Your task to perform on an android device: turn smart compose on in the gmail app Image 0: 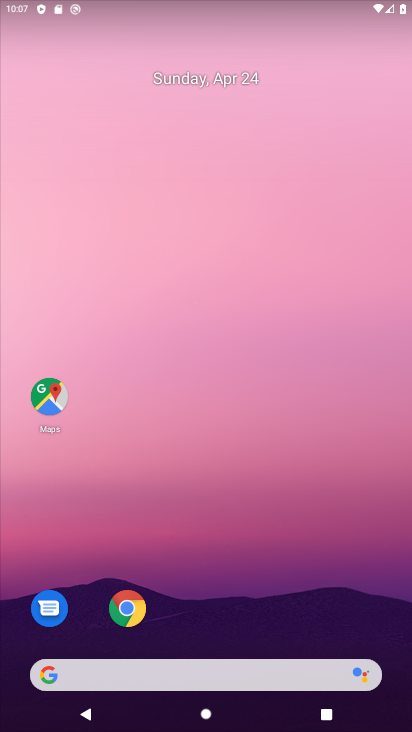
Step 0: drag from (250, 703) to (236, 123)
Your task to perform on an android device: turn smart compose on in the gmail app Image 1: 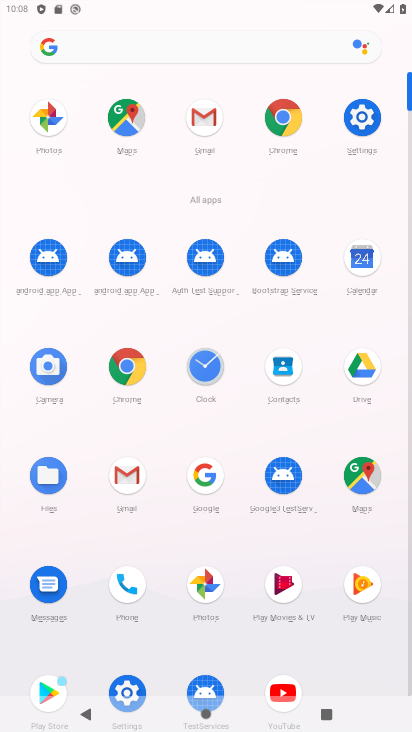
Step 1: click (217, 142)
Your task to perform on an android device: turn smart compose on in the gmail app Image 2: 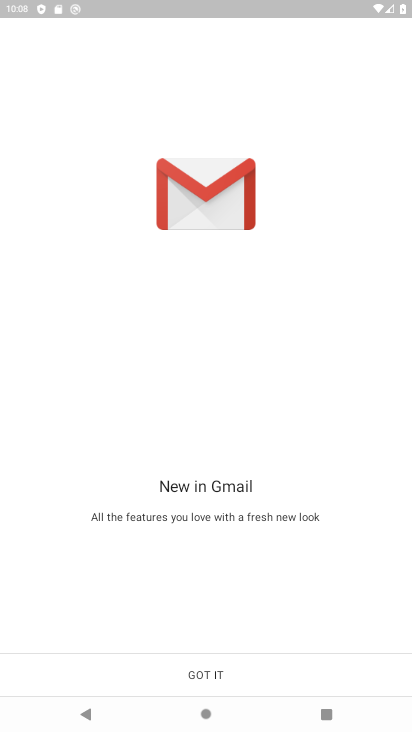
Step 2: click (221, 668)
Your task to perform on an android device: turn smart compose on in the gmail app Image 3: 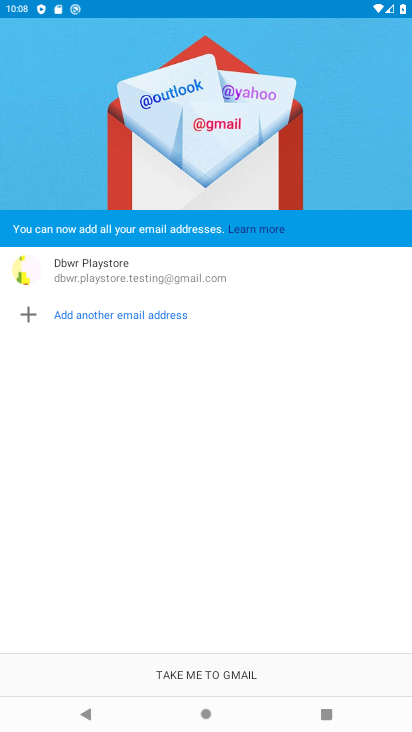
Step 3: click (221, 668)
Your task to perform on an android device: turn smart compose on in the gmail app Image 4: 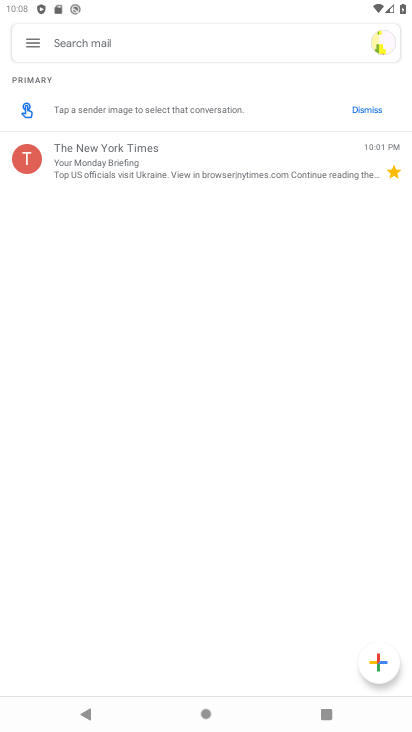
Step 4: click (371, 106)
Your task to perform on an android device: turn smart compose on in the gmail app Image 5: 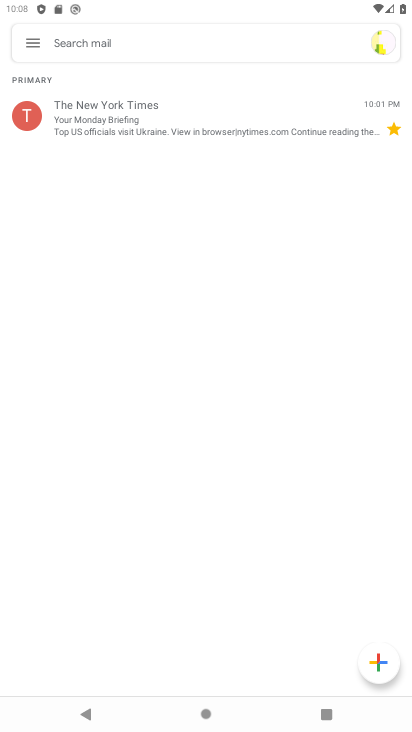
Step 5: click (29, 47)
Your task to perform on an android device: turn smart compose on in the gmail app Image 6: 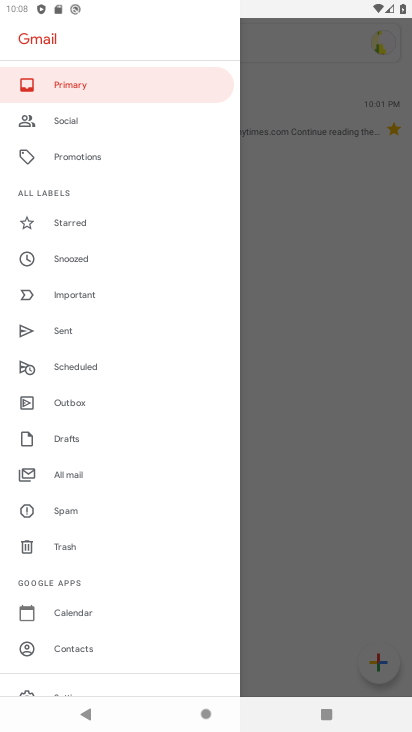
Step 6: click (66, 688)
Your task to perform on an android device: turn smart compose on in the gmail app Image 7: 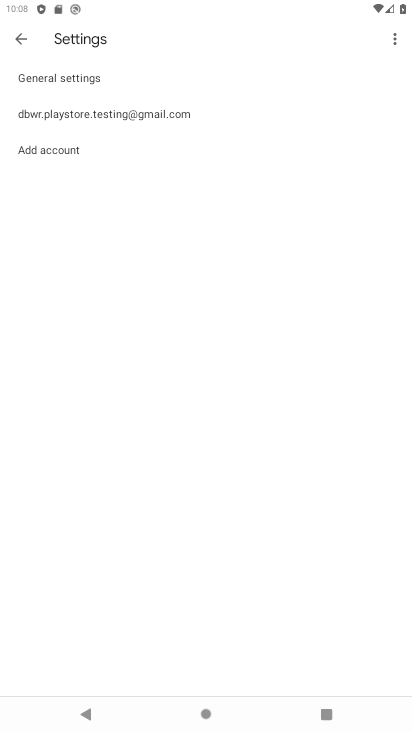
Step 7: click (130, 121)
Your task to perform on an android device: turn smart compose on in the gmail app Image 8: 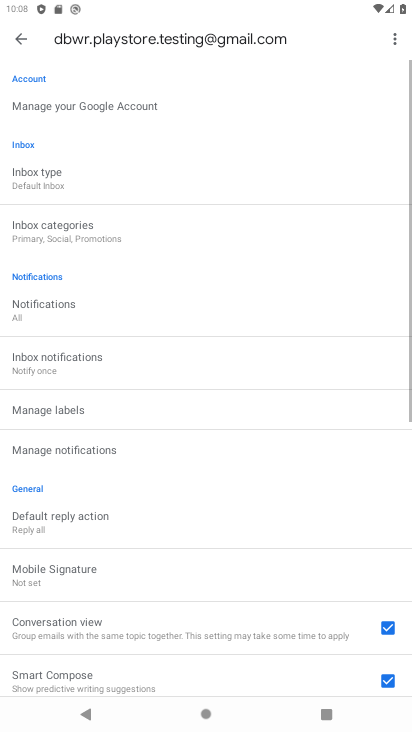
Step 8: drag from (130, 121) to (112, 259)
Your task to perform on an android device: turn smart compose on in the gmail app Image 9: 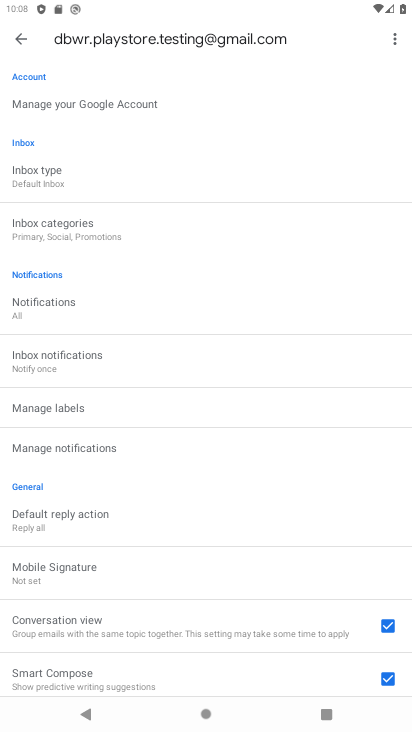
Step 9: click (102, 672)
Your task to perform on an android device: turn smart compose on in the gmail app Image 10: 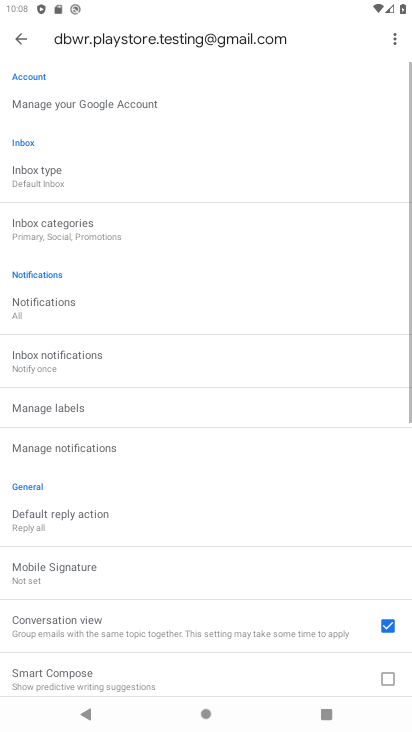
Step 10: click (102, 672)
Your task to perform on an android device: turn smart compose on in the gmail app Image 11: 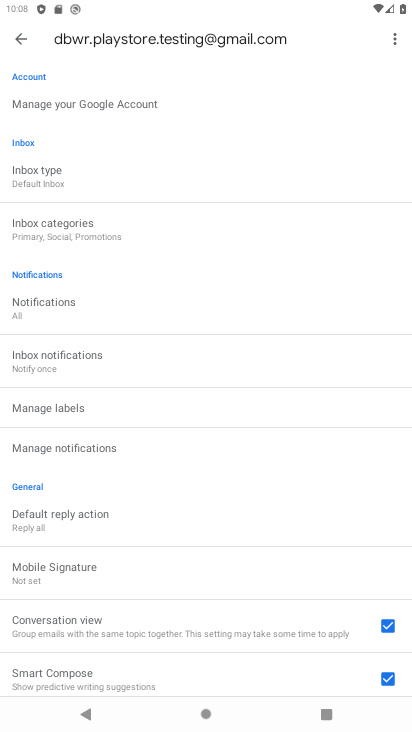
Step 11: task complete